Your task to perform on an android device: turn off location history Image 0: 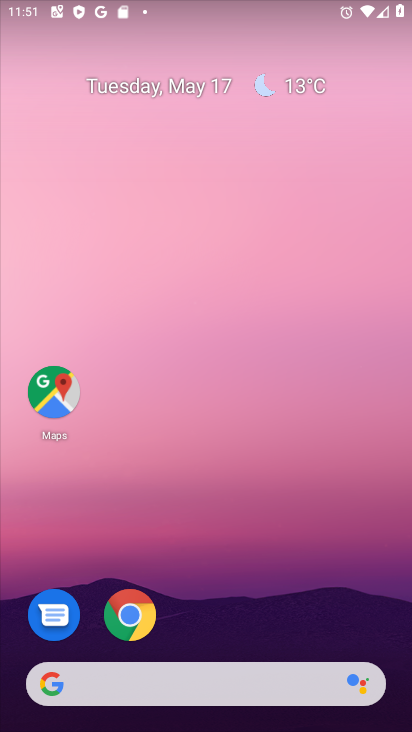
Step 0: drag from (295, 545) to (283, 195)
Your task to perform on an android device: turn off location history Image 1: 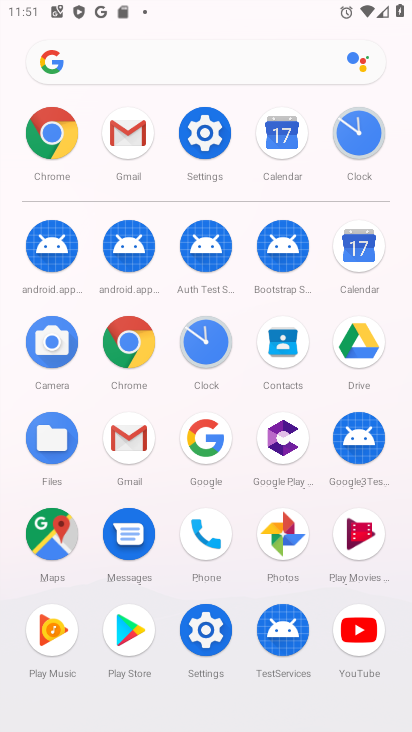
Step 1: click (204, 132)
Your task to perform on an android device: turn off location history Image 2: 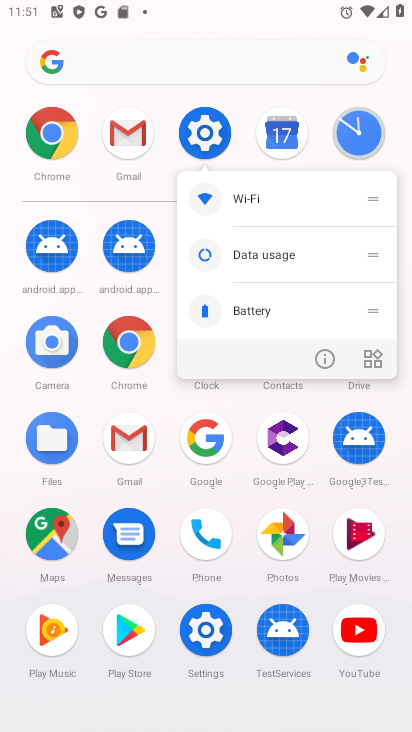
Step 2: click (204, 132)
Your task to perform on an android device: turn off location history Image 3: 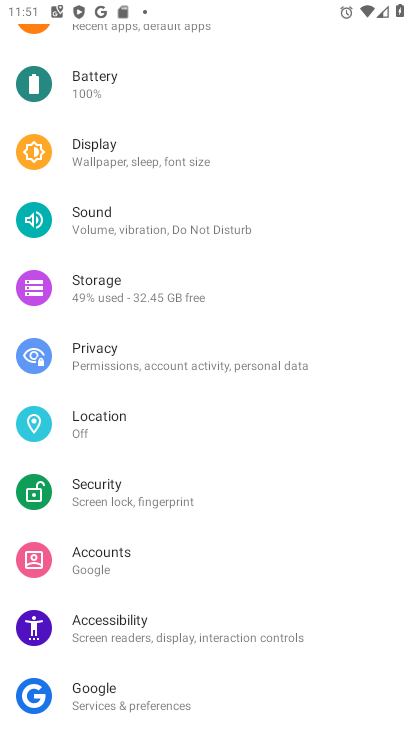
Step 3: drag from (172, 629) to (228, 155)
Your task to perform on an android device: turn off location history Image 4: 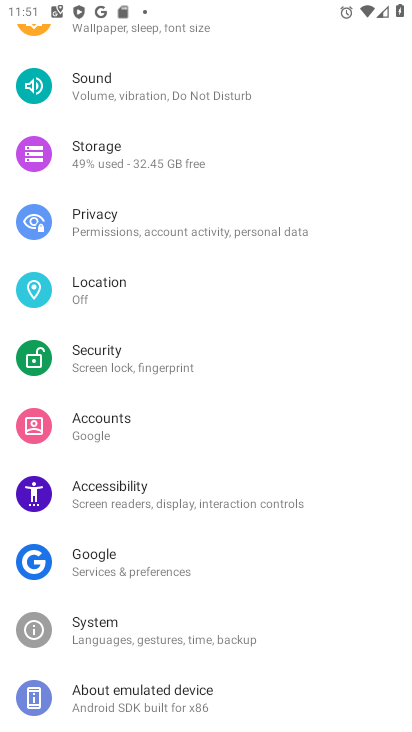
Step 4: drag from (210, 248) to (317, 161)
Your task to perform on an android device: turn off location history Image 5: 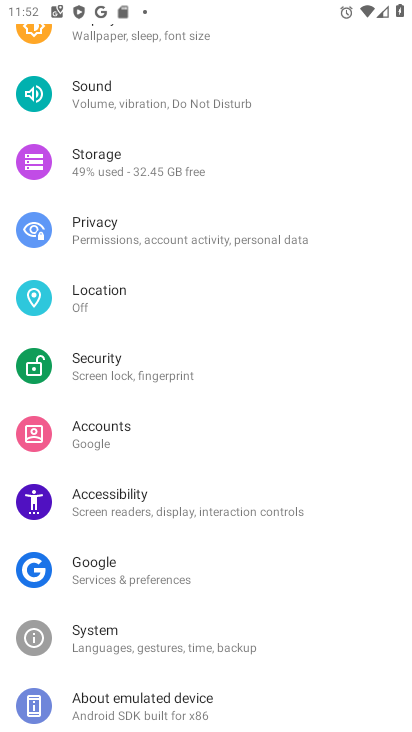
Step 5: click (123, 302)
Your task to perform on an android device: turn off location history Image 6: 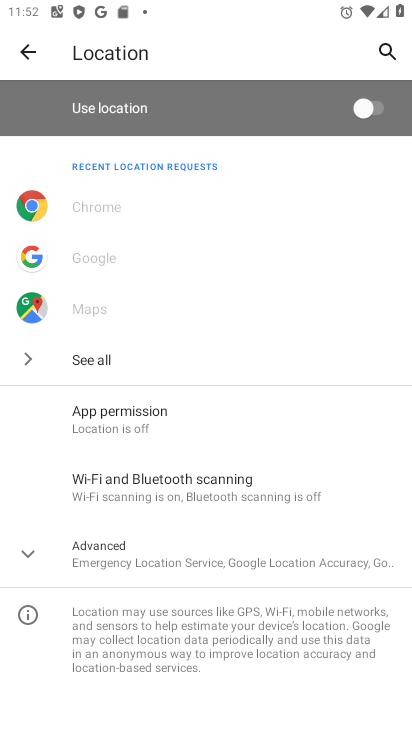
Step 6: task complete